Your task to perform on an android device: turn vacation reply on in the gmail app Image 0: 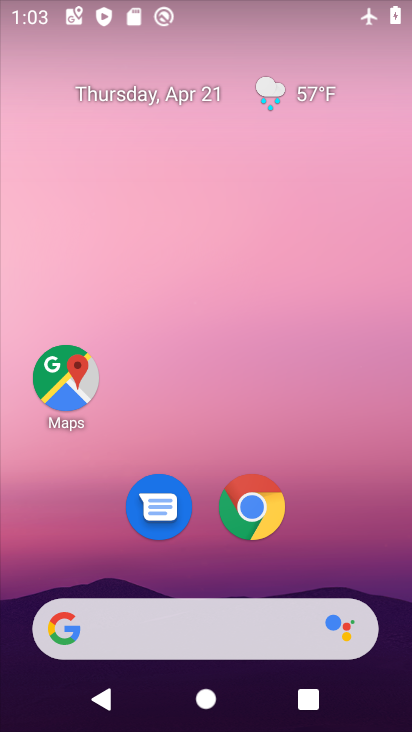
Step 0: drag from (332, 503) to (317, 39)
Your task to perform on an android device: turn vacation reply on in the gmail app Image 1: 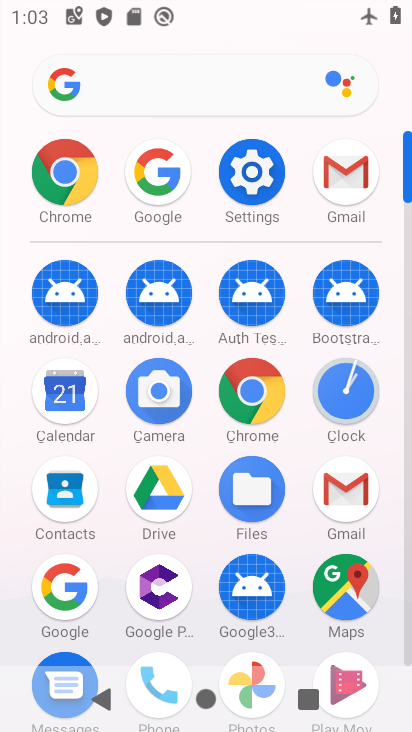
Step 1: click (350, 170)
Your task to perform on an android device: turn vacation reply on in the gmail app Image 2: 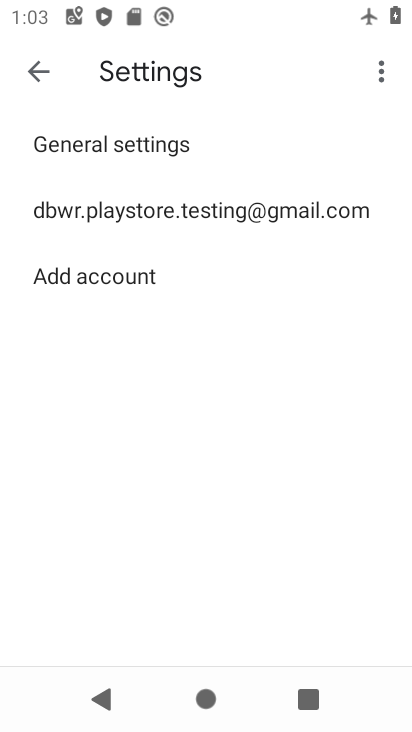
Step 2: click (319, 207)
Your task to perform on an android device: turn vacation reply on in the gmail app Image 3: 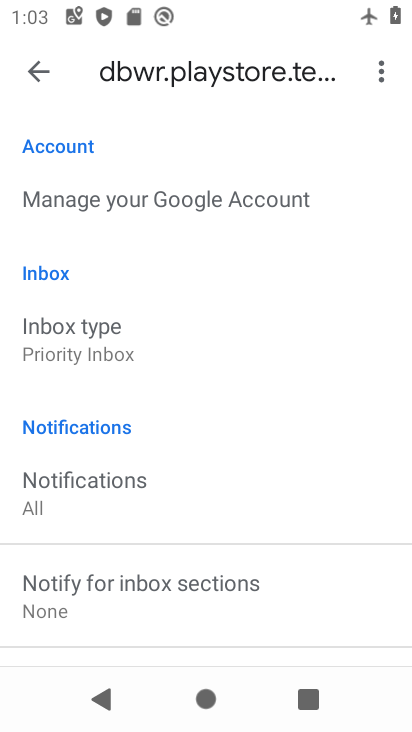
Step 3: drag from (188, 493) to (205, 384)
Your task to perform on an android device: turn vacation reply on in the gmail app Image 4: 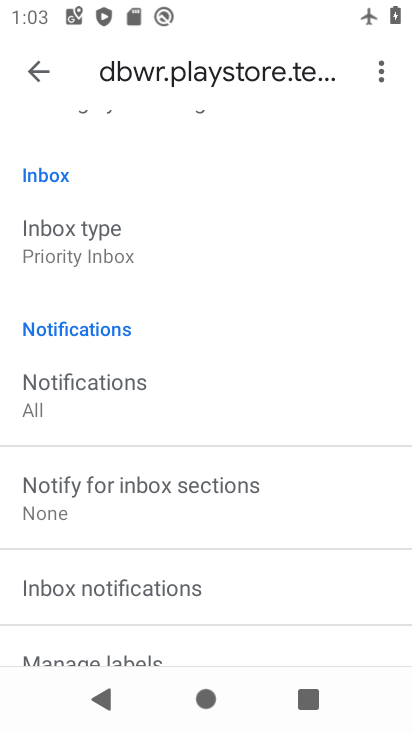
Step 4: drag from (186, 526) to (201, 394)
Your task to perform on an android device: turn vacation reply on in the gmail app Image 5: 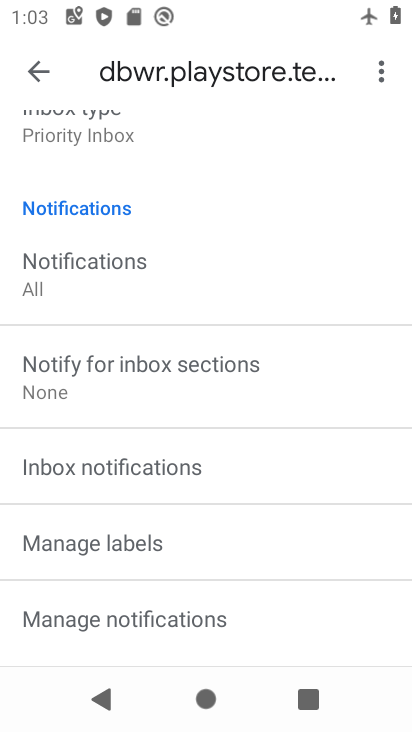
Step 5: drag from (176, 492) to (195, 378)
Your task to perform on an android device: turn vacation reply on in the gmail app Image 6: 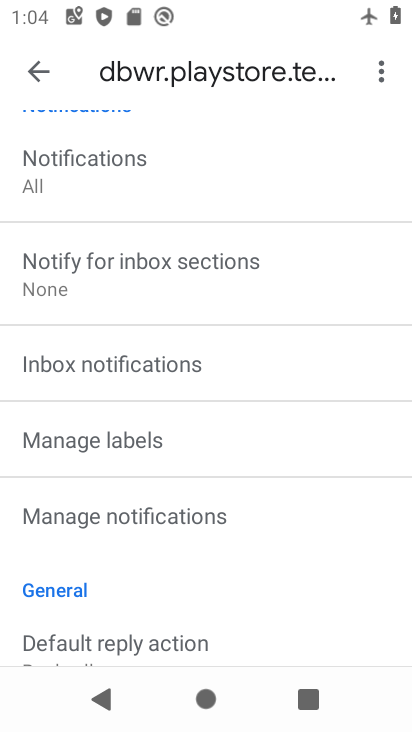
Step 6: drag from (187, 482) to (223, 369)
Your task to perform on an android device: turn vacation reply on in the gmail app Image 7: 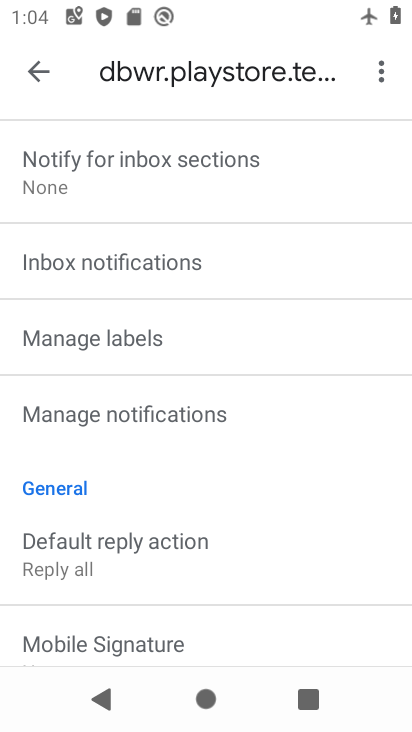
Step 7: drag from (176, 501) to (267, 356)
Your task to perform on an android device: turn vacation reply on in the gmail app Image 8: 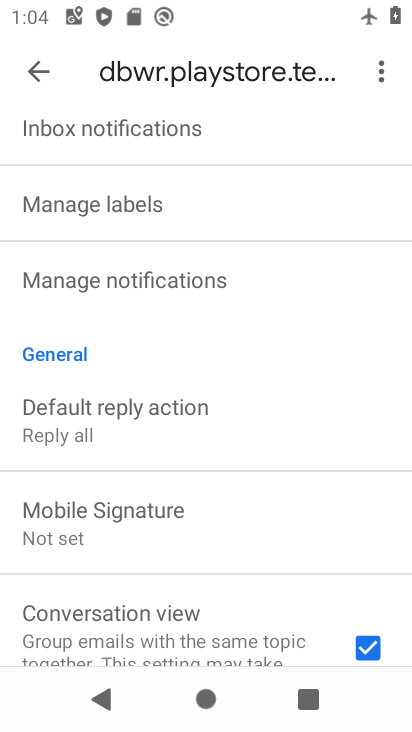
Step 8: drag from (162, 488) to (228, 364)
Your task to perform on an android device: turn vacation reply on in the gmail app Image 9: 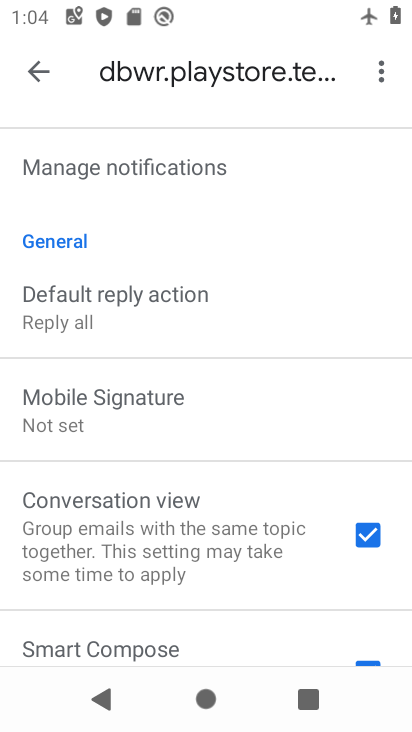
Step 9: drag from (147, 466) to (244, 338)
Your task to perform on an android device: turn vacation reply on in the gmail app Image 10: 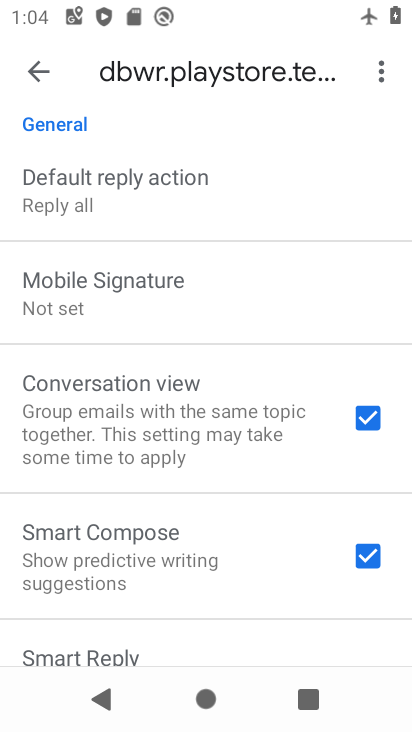
Step 10: drag from (165, 509) to (255, 369)
Your task to perform on an android device: turn vacation reply on in the gmail app Image 11: 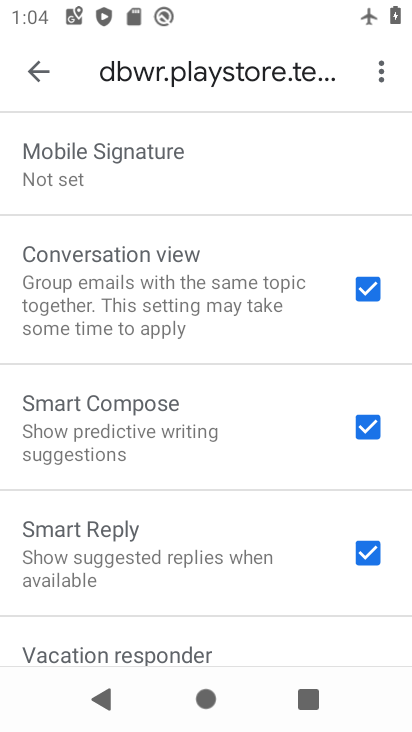
Step 11: drag from (155, 512) to (225, 397)
Your task to perform on an android device: turn vacation reply on in the gmail app Image 12: 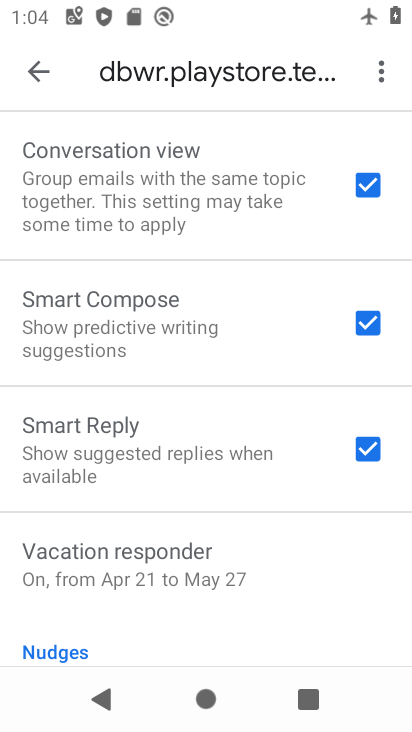
Step 12: drag from (124, 531) to (202, 375)
Your task to perform on an android device: turn vacation reply on in the gmail app Image 13: 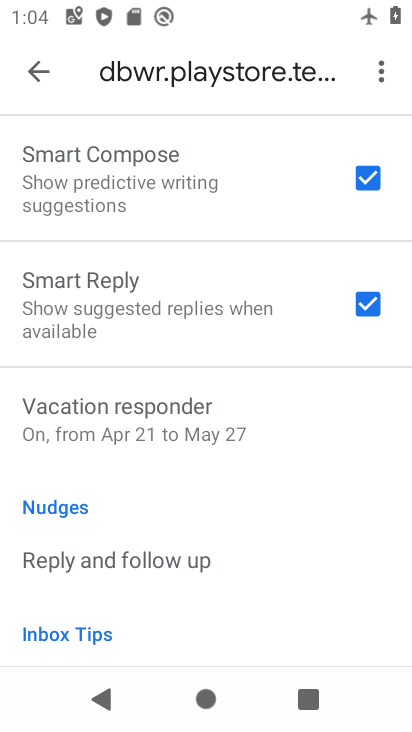
Step 13: click (163, 424)
Your task to perform on an android device: turn vacation reply on in the gmail app Image 14: 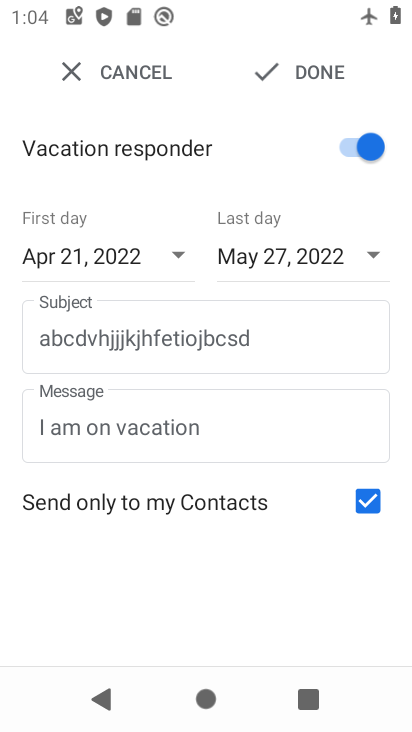
Step 14: task complete